Your task to perform on an android device: toggle show notifications on the lock screen Image 0: 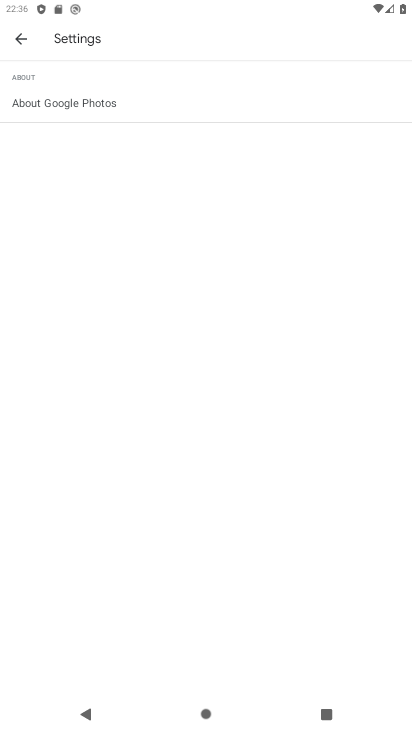
Step 0: press home button
Your task to perform on an android device: toggle show notifications on the lock screen Image 1: 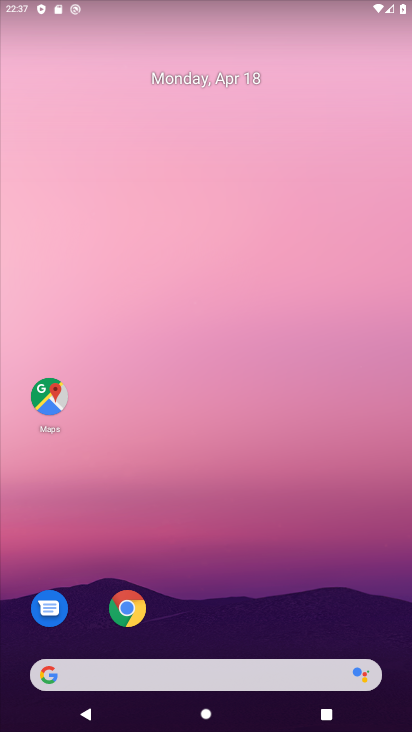
Step 1: drag from (240, 560) to (283, 132)
Your task to perform on an android device: toggle show notifications on the lock screen Image 2: 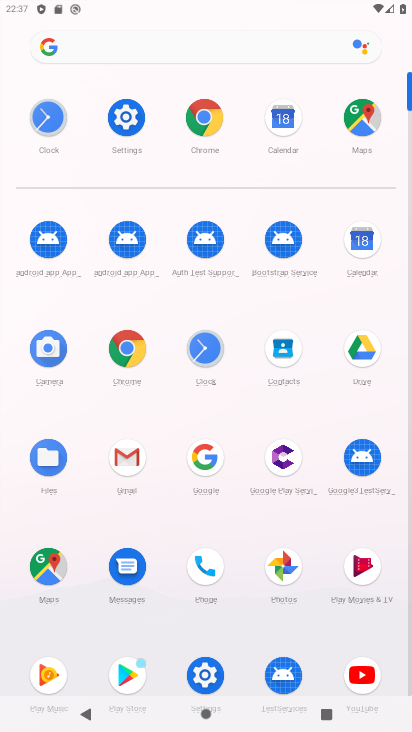
Step 2: click (127, 121)
Your task to perform on an android device: toggle show notifications on the lock screen Image 3: 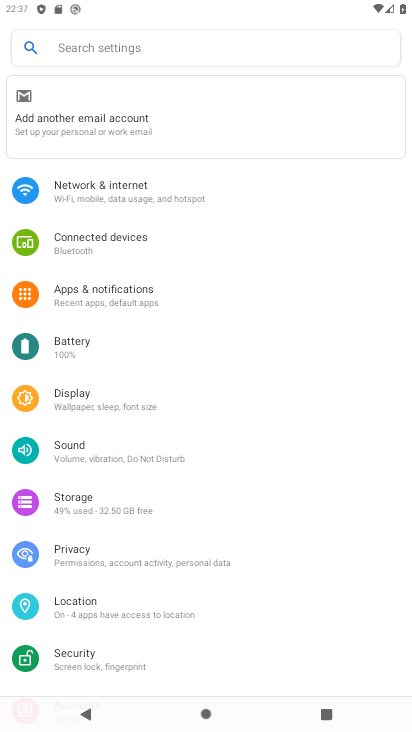
Step 3: click (104, 301)
Your task to perform on an android device: toggle show notifications on the lock screen Image 4: 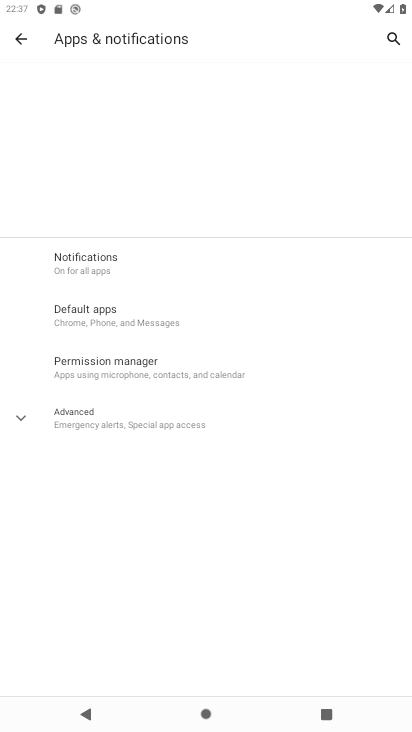
Step 4: click (117, 274)
Your task to perform on an android device: toggle show notifications on the lock screen Image 5: 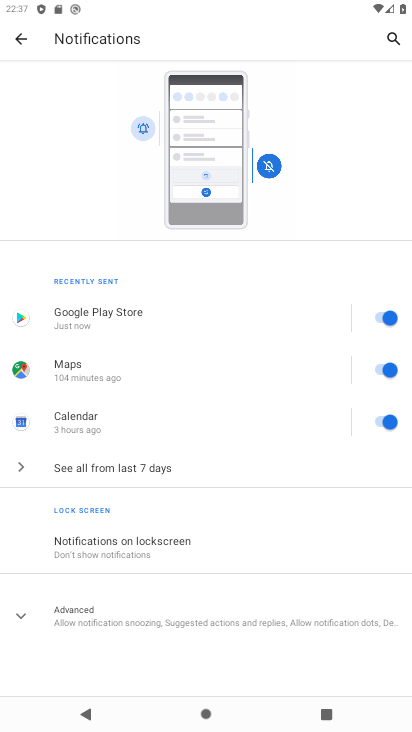
Step 5: click (149, 557)
Your task to perform on an android device: toggle show notifications on the lock screen Image 6: 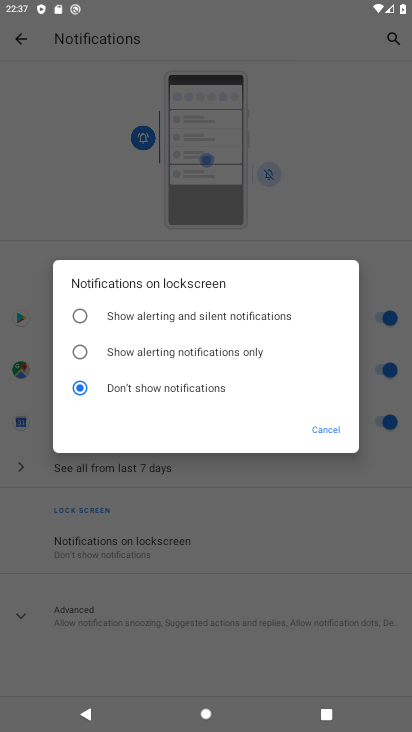
Step 6: click (77, 314)
Your task to perform on an android device: toggle show notifications on the lock screen Image 7: 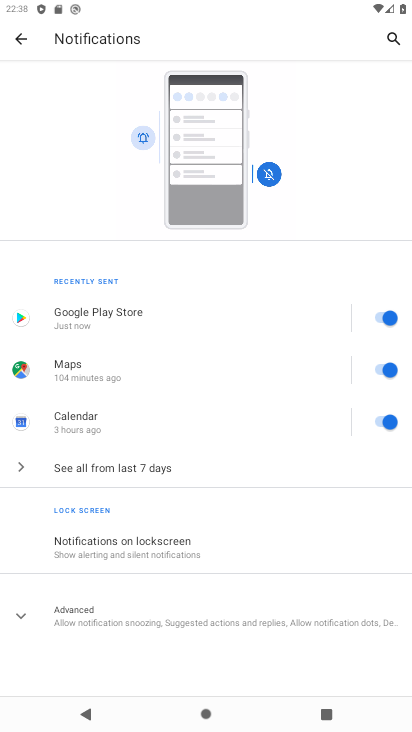
Step 7: task complete